Your task to perform on an android device: open app "Paramount+ | Peak Streaming" (install if not already installed) Image 0: 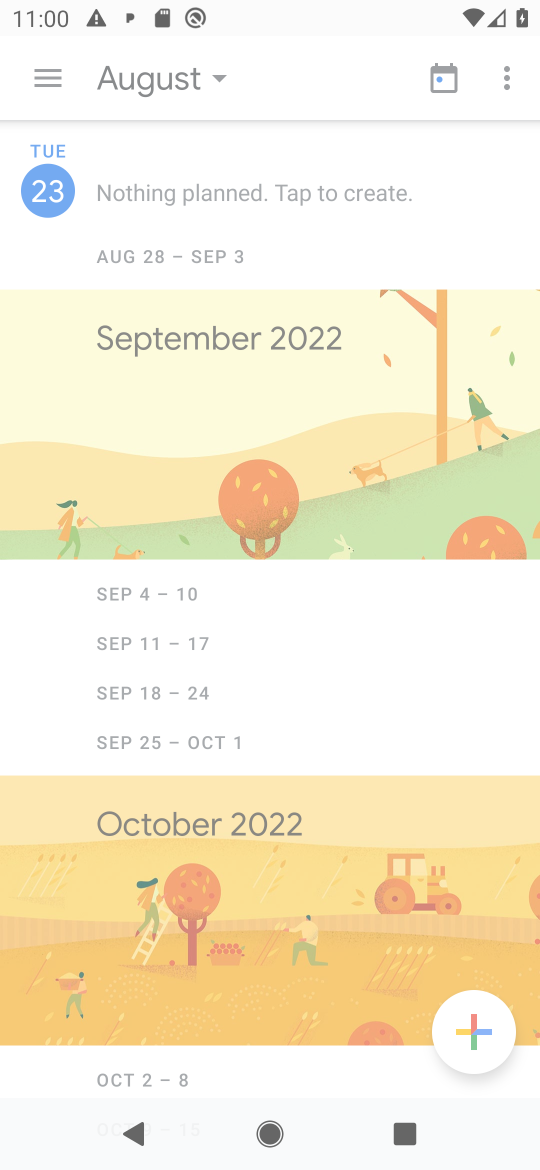
Step 0: press home button
Your task to perform on an android device: open app "Paramount+ | Peak Streaming" (install if not already installed) Image 1: 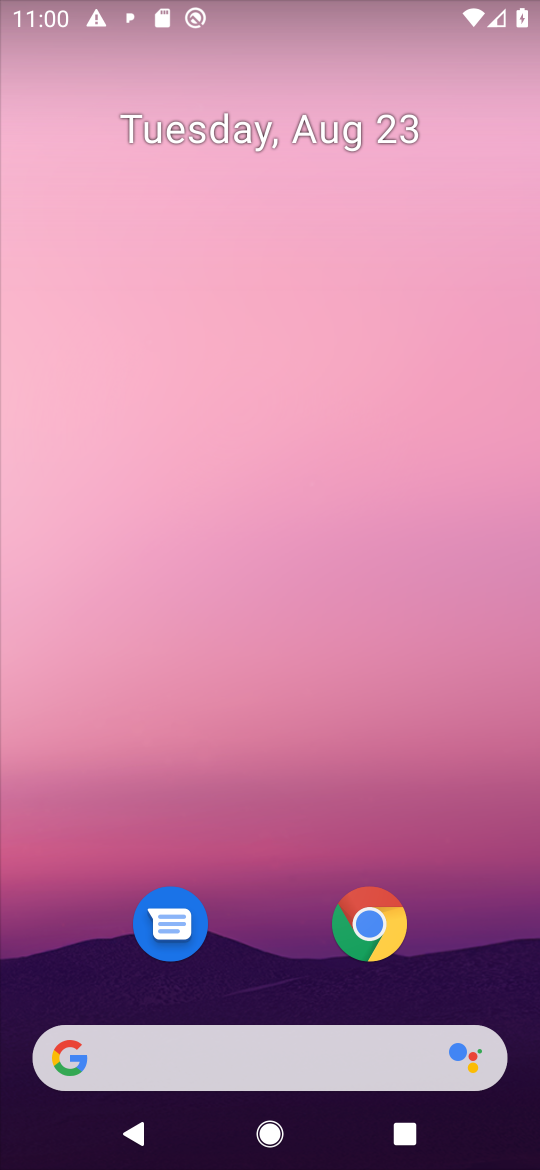
Step 1: drag from (471, 956) to (461, 189)
Your task to perform on an android device: open app "Paramount+ | Peak Streaming" (install if not already installed) Image 2: 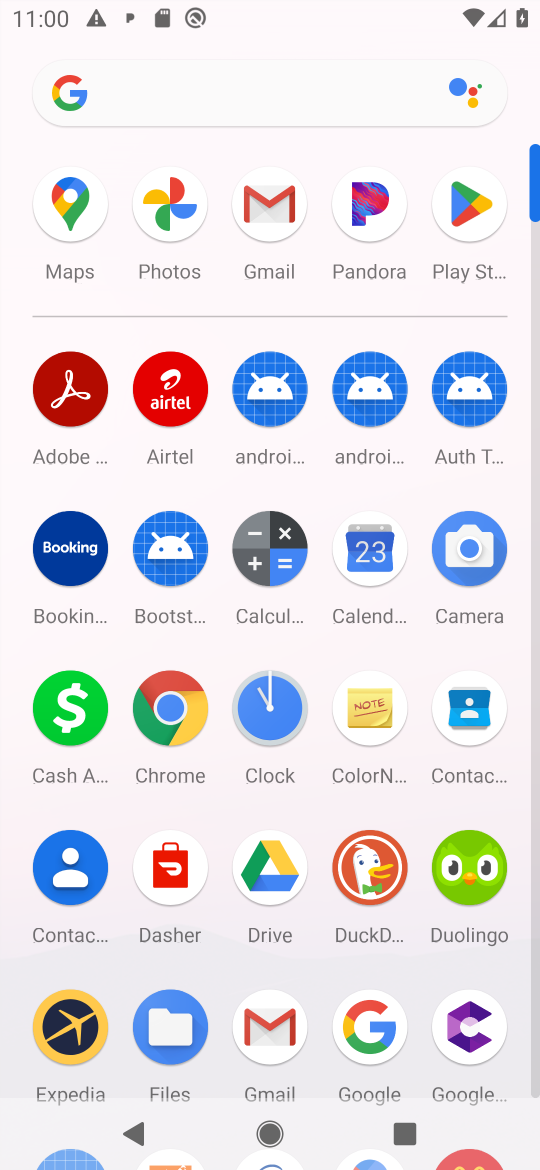
Step 2: click (467, 213)
Your task to perform on an android device: open app "Paramount+ | Peak Streaming" (install if not already installed) Image 3: 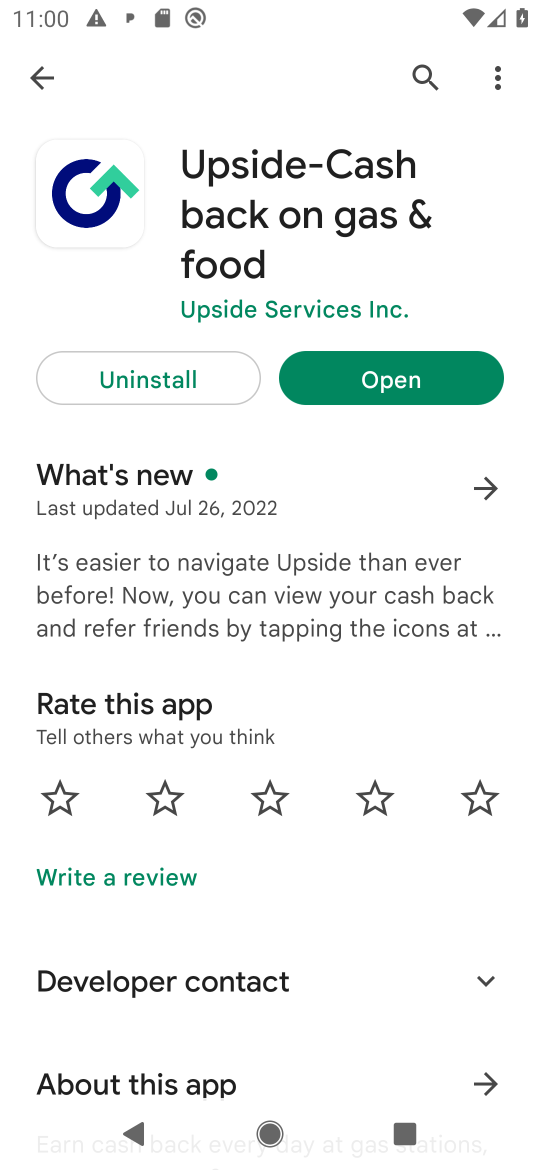
Step 3: press back button
Your task to perform on an android device: open app "Paramount+ | Peak Streaming" (install if not already installed) Image 4: 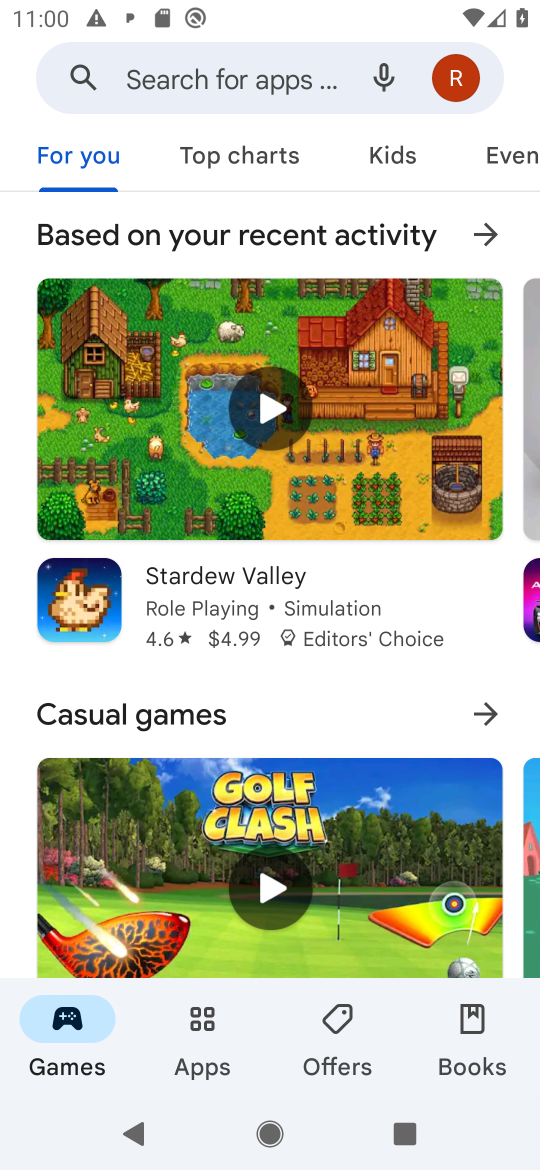
Step 4: click (251, 77)
Your task to perform on an android device: open app "Paramount+ | Peak Streaming" (install if not already installed) Image 5: 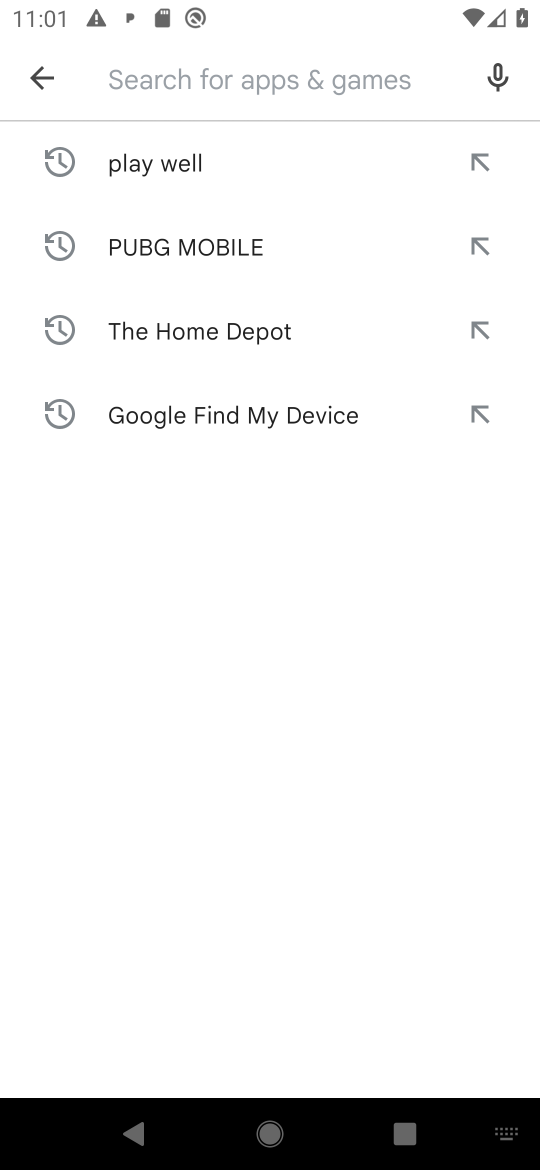
Step 5: type "Paramount+ | Peak Streaming"
Your task to perform on an android device: open app "Paramount+ | Peak Streaming" (install if not already installed) Image 6: 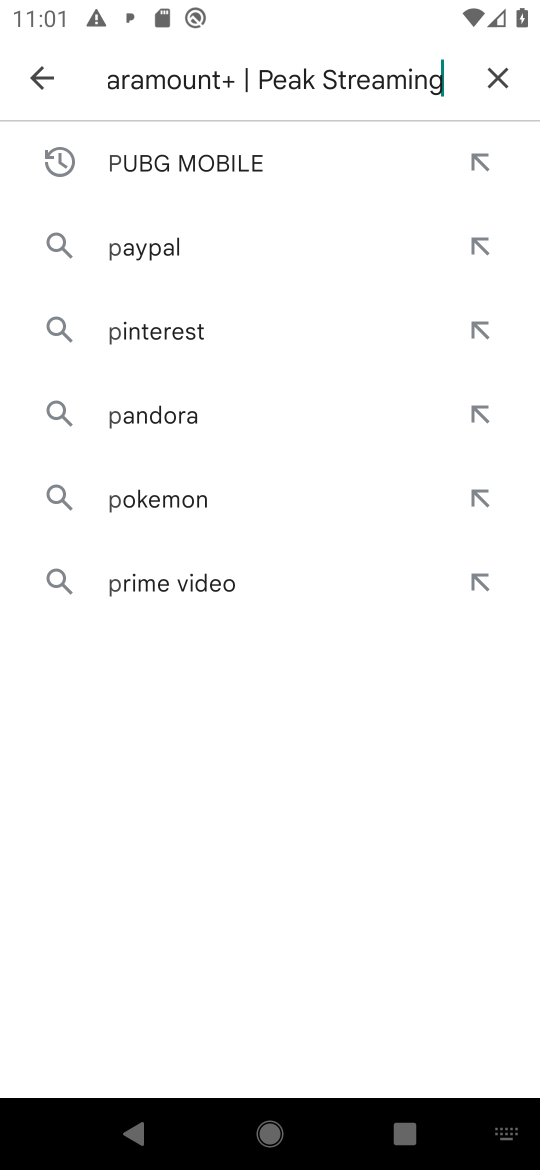
Step 6: press enter
Your task to perform on an android device: open app "Paramount+ | Peak Streaming" (install if not already installed) Image 7: 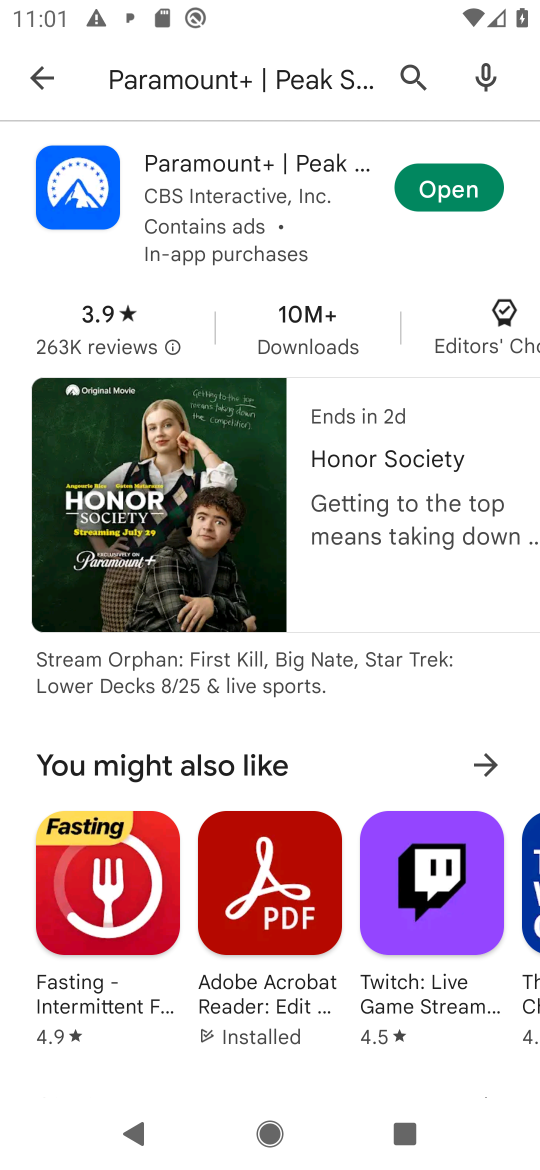
Step 7: click (457, 187)
Your task to perform on an android device: open app "Paramount+ | Peak Streaming" (install if not already installed) Image 8: 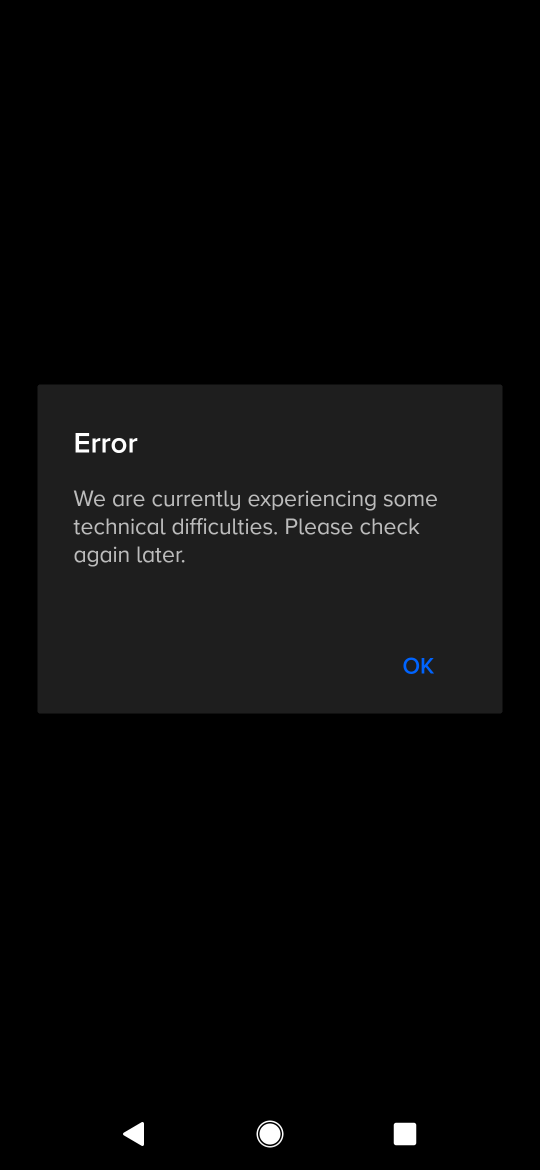
Step 8: task complete